Your task to perform on an android device: Search for "duracell triple a" on walmart.com, select the first entry, add it to the cart, then select checkout. Image 0: 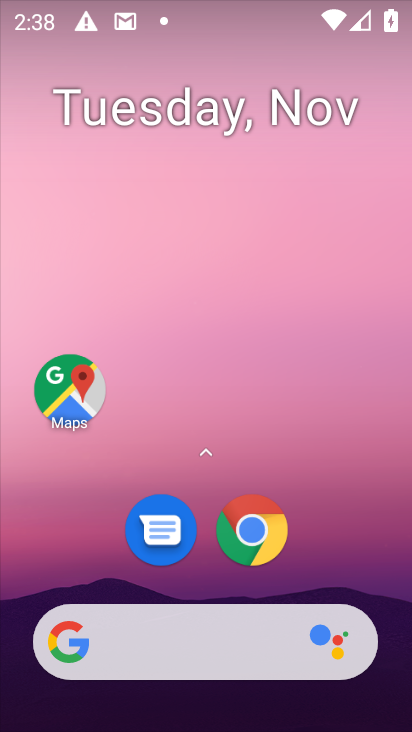
Step 0: drag from (218, 701) to (216, 99)
Your task to perform on an android device: Search for "duracell triple a" on walmart.com, select the first entry, add it to the cart, then select checkout. Image 1: 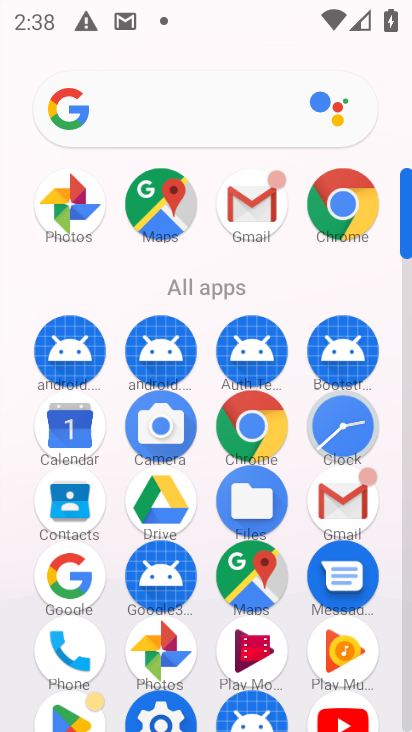
Step 1: click (249, 422)
Your task to perform on an android device: Search for "duracell triple a" on walmart.com, select the first entry, add it to the cart, then select checkout. Image 2: 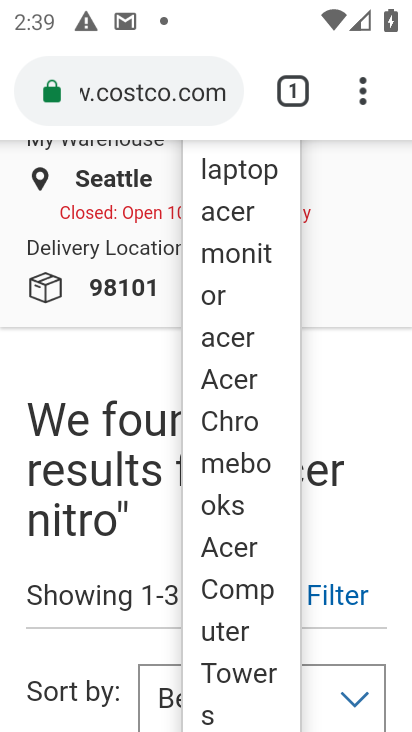
Step 2: drag from (363, 224) to (374, 578)
Your task to perform on an android device: Search for "duracell triple a" on walmart.com, select the first entry, add it to the cart, then select checkout. Image 3: 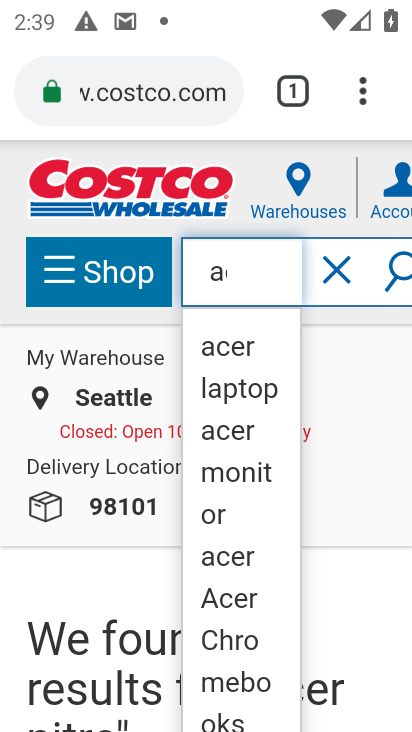
Step 3: click (397, 256)
Your task to perform on an android device: Search for "duracell triple a" on walmart.com, select the first entry, add it to the cart, then select checkout. Image 4: 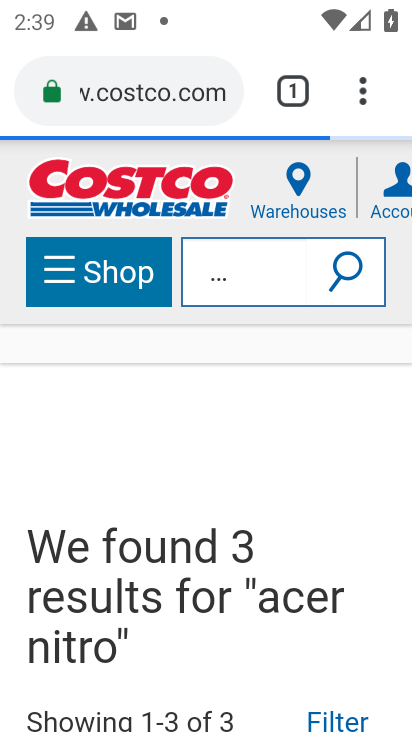
Step 4: drag from (191, 633) to (245, 247)
Your task to perform on an android device: Search for "duracell triple a" on walmart.com, select the first entry, add it to the cart, then select checkout. Image 5: 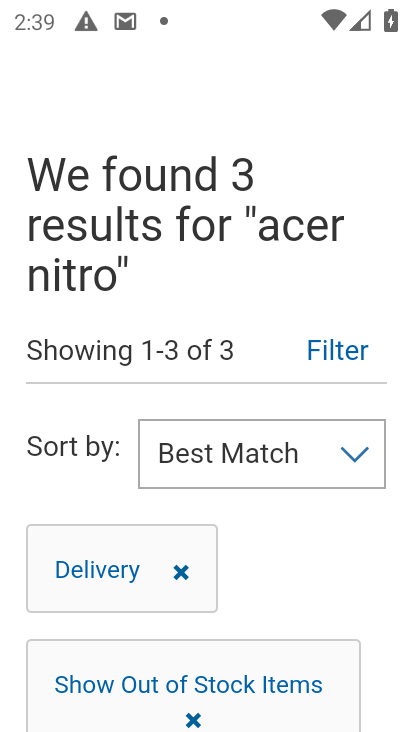
Step 5: drag from (292, 621) to (307, 169)
Your task to perform on an android device: Search for "duracell triple a" on walmart.com, select the first entry, add it to the cart, then select checkout. Image 6: 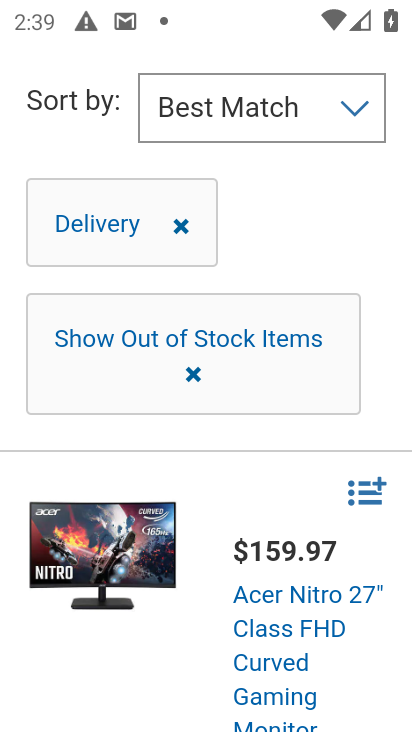
Step 6: click (151, 576)
Your task to perform on an android device: Search for "duracell triple a" on walmart.com, select the first entry, add it to the cart, then select checkout. Image 7: 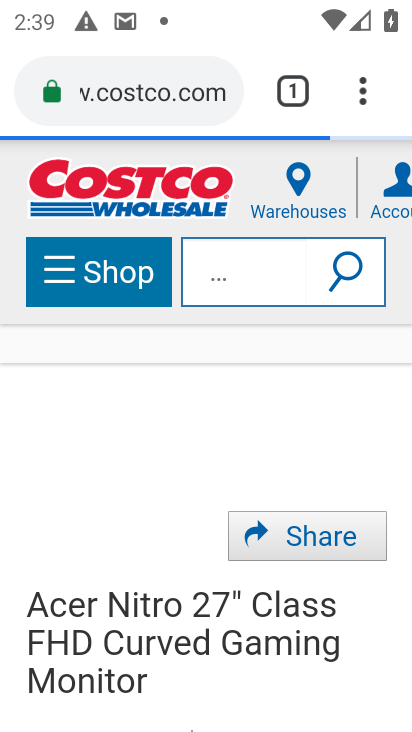
Step 7: drag from (143, 539) to (194, 211)
Your task to perform on an android device: Search for "duracell triple a" on walmart.com, select the first entry, add it to the cart, then select checkout. Image 8: 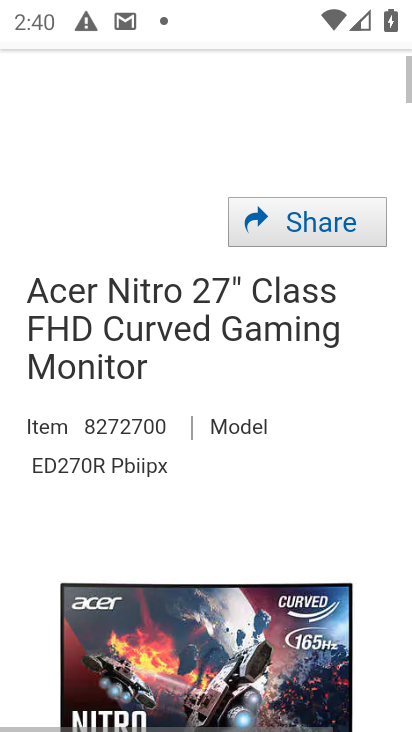
Step 8: drag from (218, 593) to (242, 116)
Your task to perform on an android device: Search for "duracell triple a" on walmart.com, select the first entry, add it to the cart, then select checkout. Image 9: 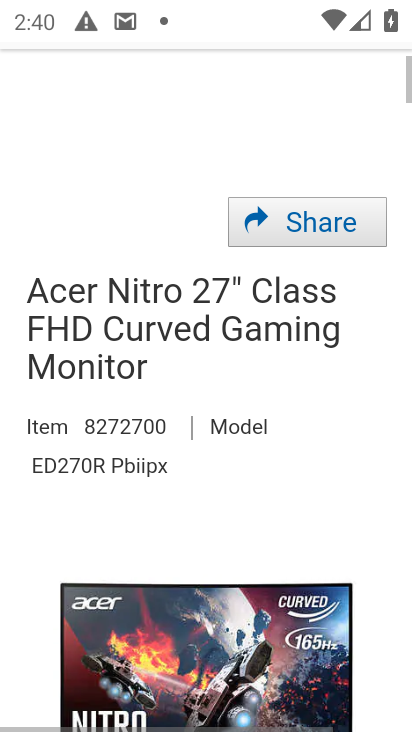
Step 9: drag from (248, 571) to (263, 138)
Your task to perform on an android device: Search for "duracell triple a" on walmart.com, select the first entry, add it to the cart, then select checkout. Image 10: 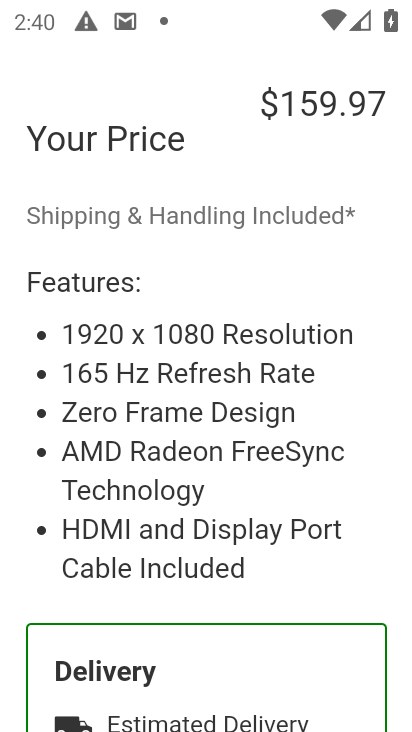
Step 10: drag from (251, 643) to (308, 240)
Your task to perform on an android device: Search for "duracell triple a" on walmart.com, select the first entry, add it to the cart, then select checkout. Image 11: 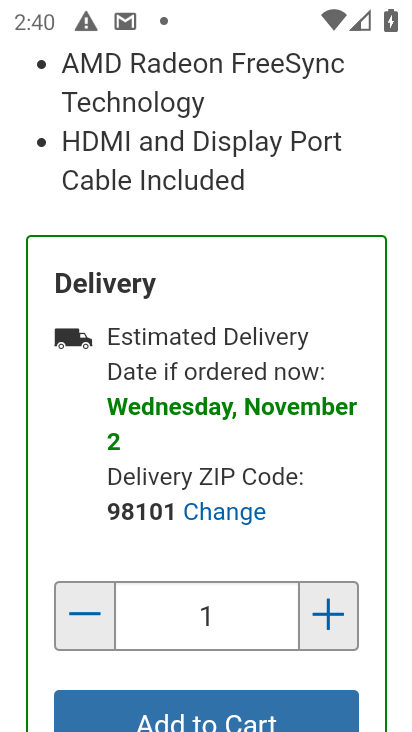
Step 11: drag from (239, 670) to (242, 371)
Your task to perform on an android device: Search for "duracell triple a" on walmart.com, select the first entry, add it to the cart, then select checkout. Image 12: 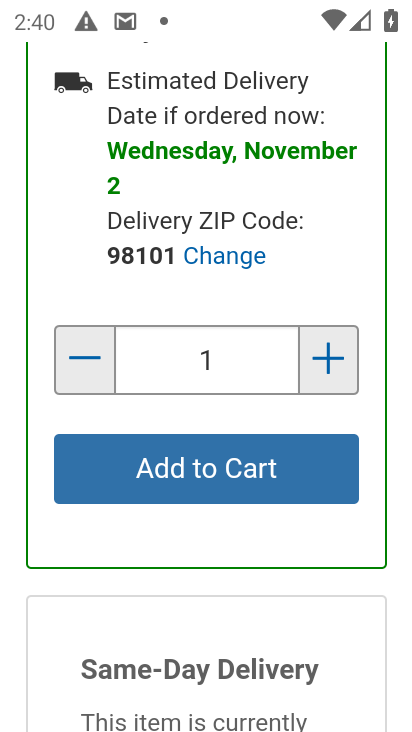
Step 12: click (188, 463)
Your task to perform on an android device: Search for "duracell triple a" on walmart.com, select the first entry, add it to the cart, then select checkout. Image 13: 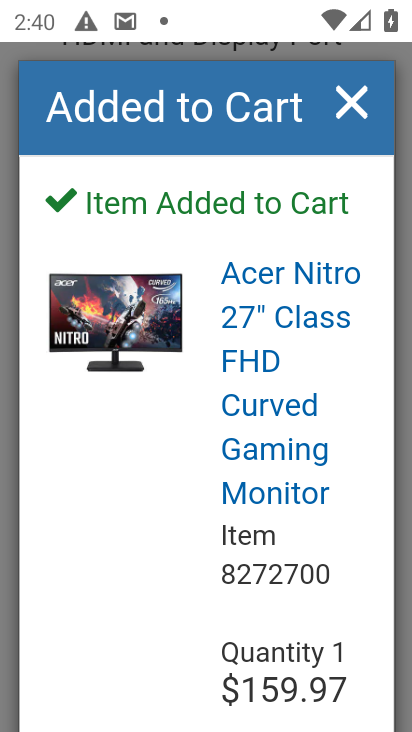
Step 13: task complete